Your task to perform on an android device: toggle notification dots Image 0: 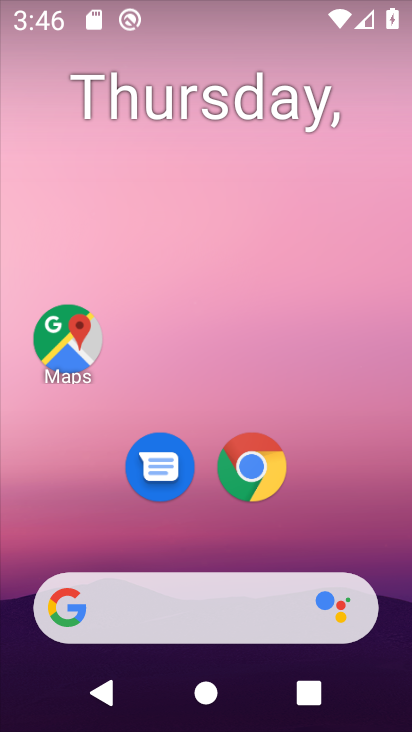
Step 0: drag from (201, 543) to (257, 103)
Your task to perform on an android device: toggle notification dots Image 1: 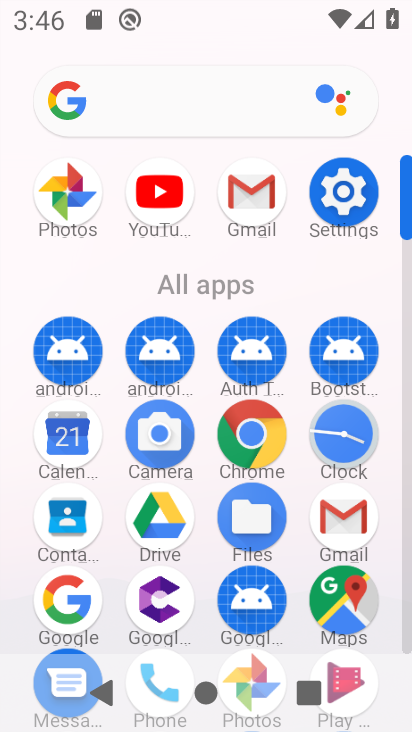
Step 1: click (349, 194)
Your task to perform on an android device: toggle notification dots Image 2: 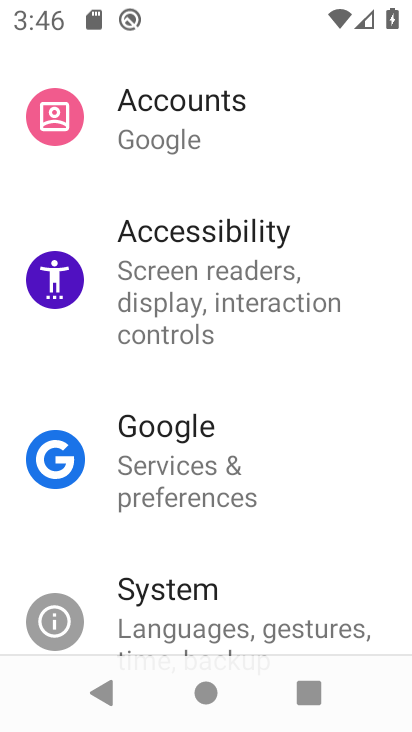
Step 2: drag from (238, 170) to (236, 549)
Your task to perform on an android device: toggle notification dots Image 3: 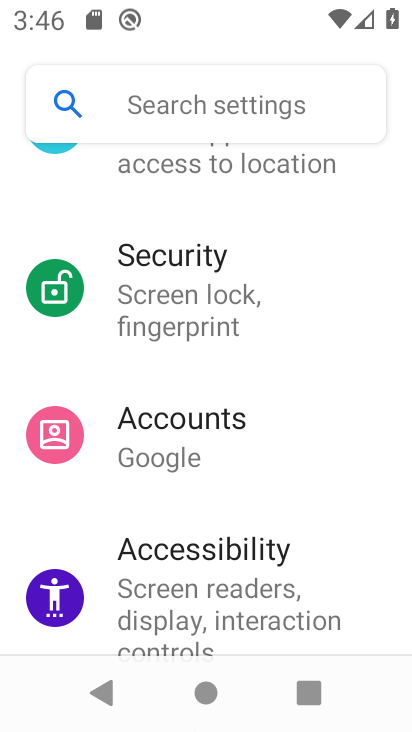
Step 3: drag from (222, 236) to (224, 540)
Your task to perform on an android device: toggle notification dots Image 4: 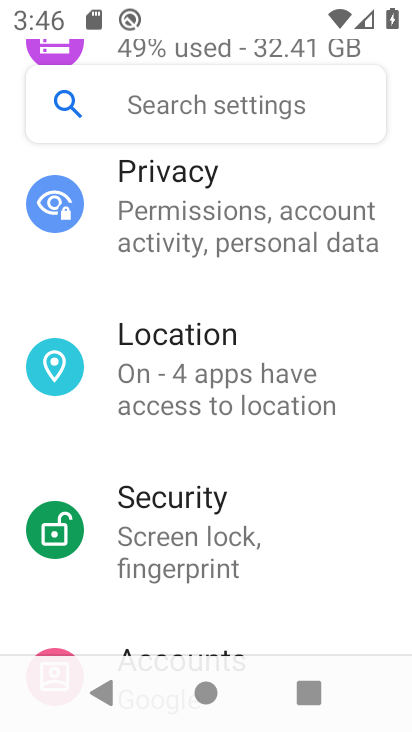
Step 4: drag from (305, 265) to (274, 637)
Your task to perform on an android device: toggle notification dots Image 5: 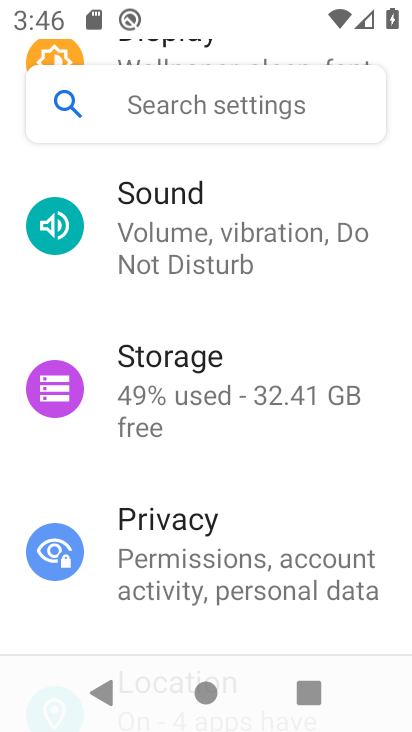
Step 5: drag from (287, 356) to (248, 697)
Your task to perform on an android device: toggle notification dots Image 6: 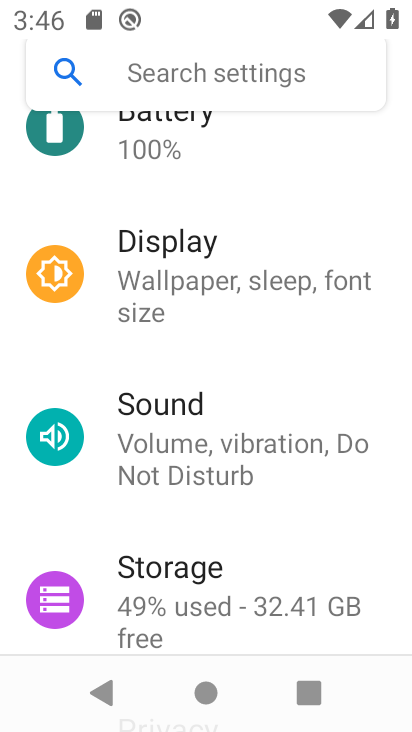
Step 6: drag from (231, 177) to (227, 647)
Your task to perform on an android device: toggle notification dots Image 7: 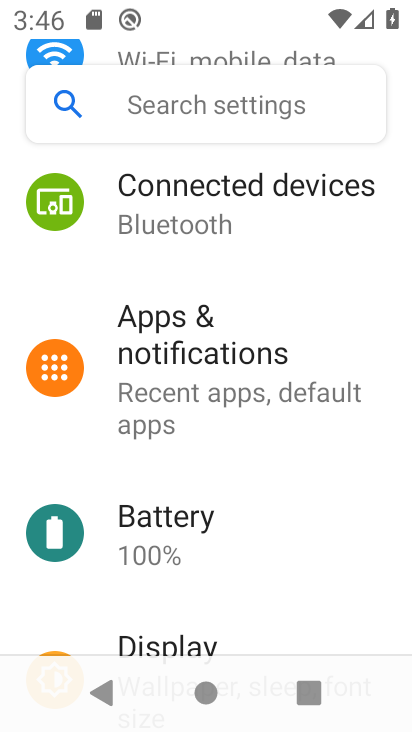
Step 7: drag from (258, 235) to (250, 615)
Your task to perform on an android device: toggle notification dots Image 8: 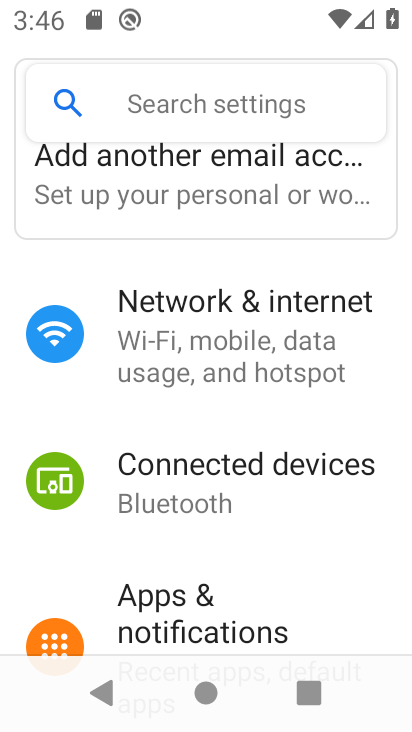
Step 8: click (220, 623)
Your task to perform on an android device: toggle notification dots Image 9: 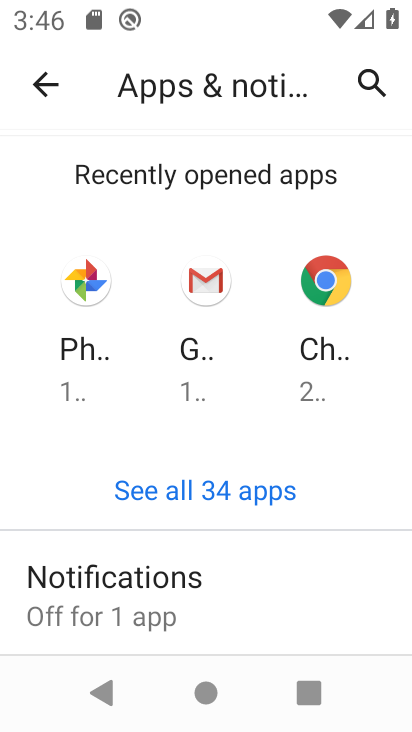
Step 9: drag from (193, 614) to (238, 286)
Your task to perform on an android device: toggle notification dots Image 10: 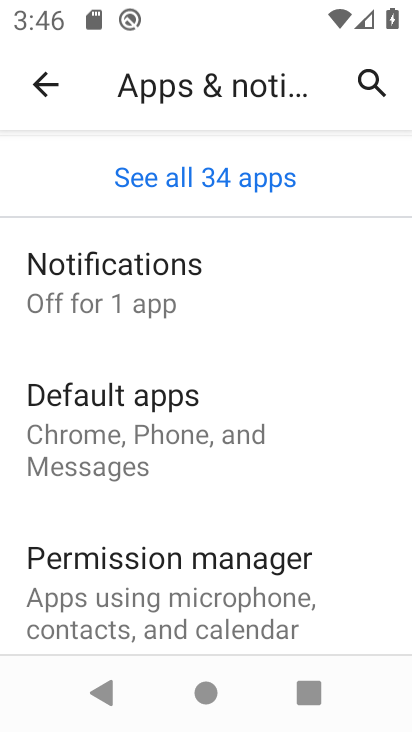
Step 10: click (124, 310)
Your task to perform on an android device: toggle notification dots Image 11: 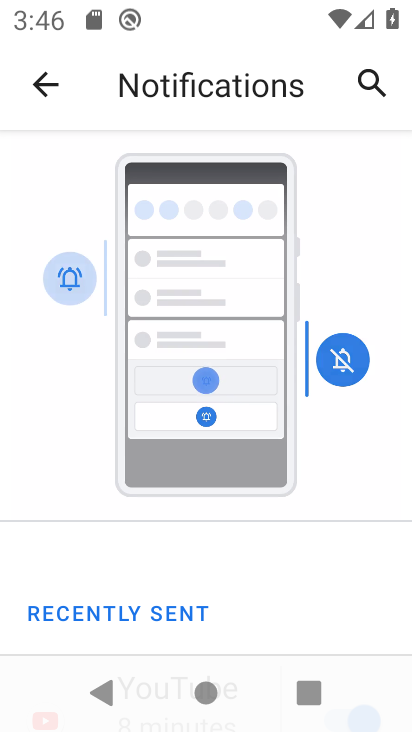
Step 11: drag from (134, 545) to (227, 230)
Your task to perform on an android device: toggle notification dots Image 12: 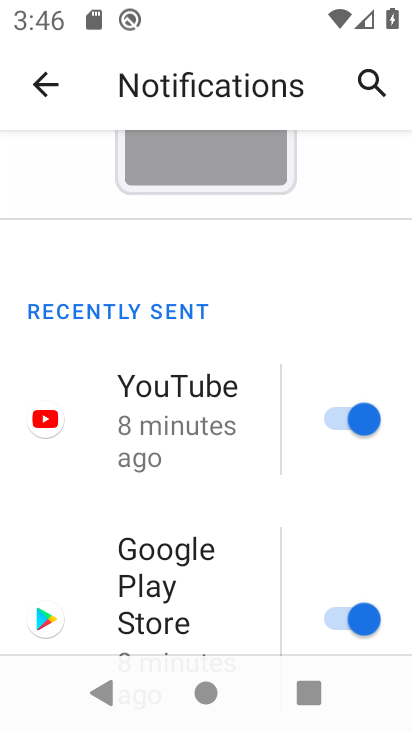
Step 12: drag from (219, 517) to (287, 215)
Your task to perform on an android device: toggle notification dots Image 13: 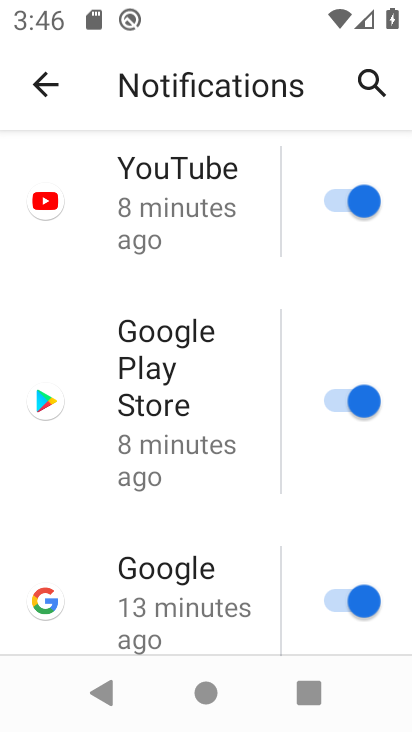
Step 13: drag from (243, 532) to (321, 104)
Your task to perform on an android device: toggle notification dots Image 14: 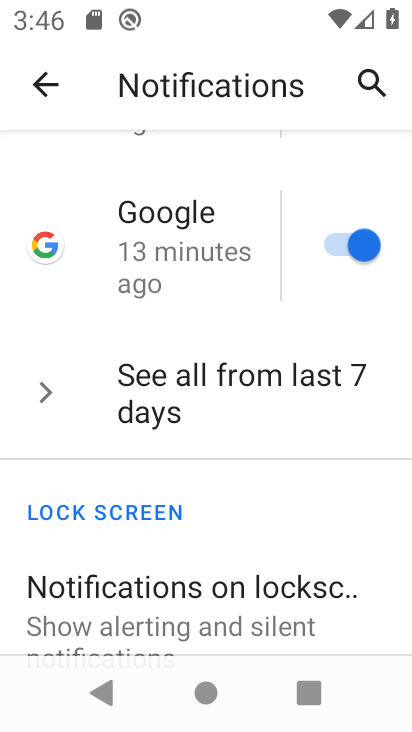
Step 14: drag from (211, 583) to (242, 304)
Your task to perform on an android device: toggle notification dots Image 15: 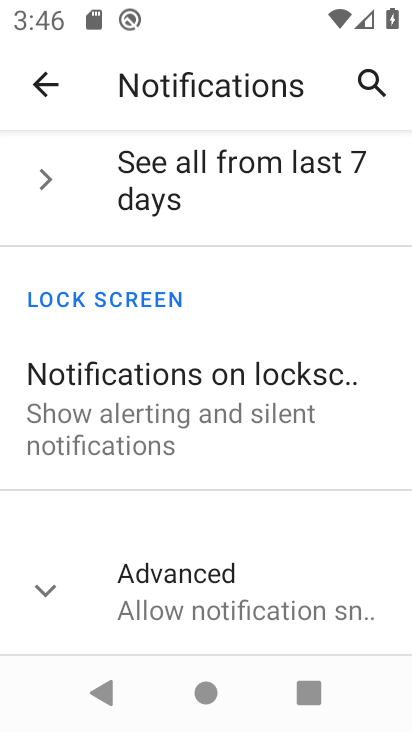
Step 15: drag from (230, 593) to (265, 366)
Your task to perform on an android device: toggle notification dots Image 16: 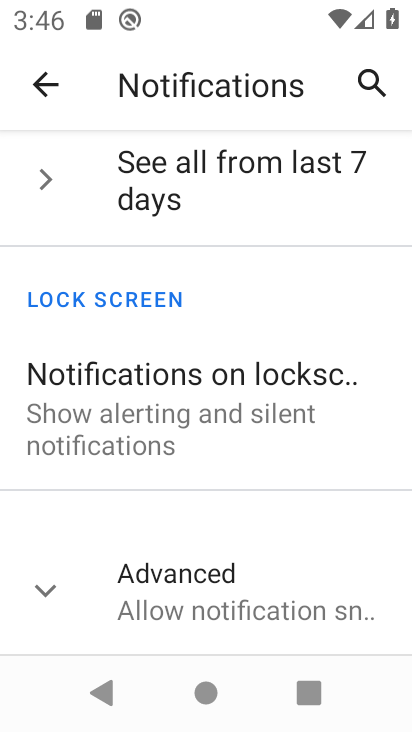
Step 16: click (138, 576)
Your task to perform on an android device: toggle notification dots Image 17: 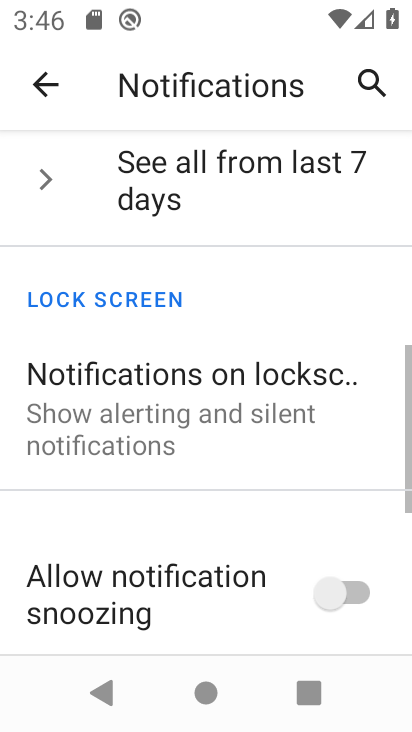
Step 17: drag from (157, 540) to (252, 208)
Your task to perform on an android device: toggle notification dots Image 18: 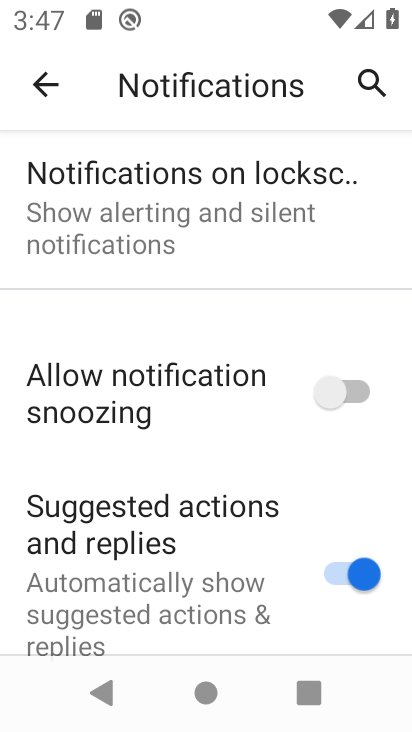
Step 18: drag from (284, 589) to (334, 248)
Your task to perform on an android device: toggle notification dots Image 19: 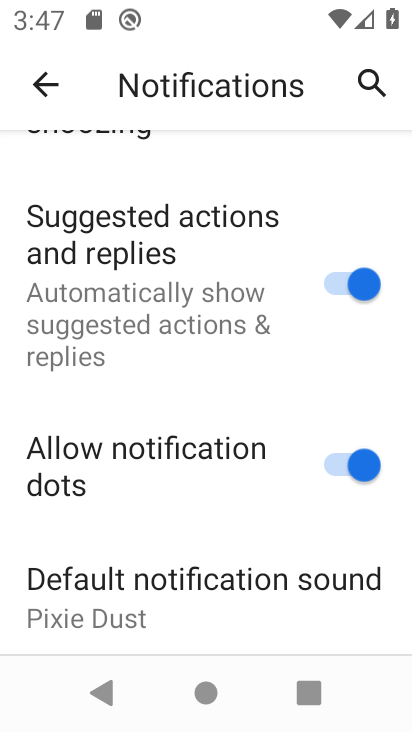
Step 19: click (324, 460)
Your task to perform on an android device: toggle notification dots Image 20: 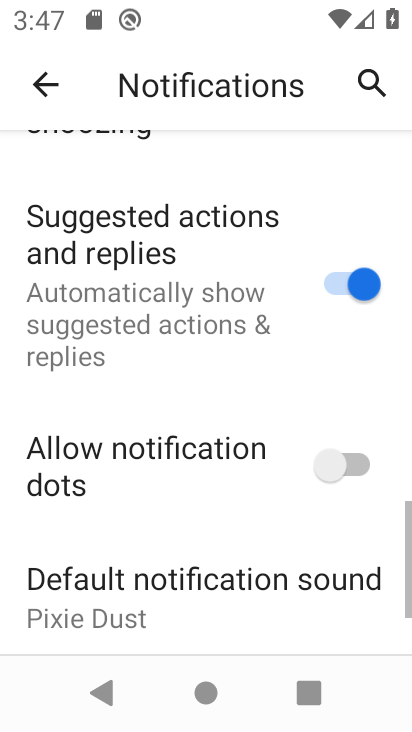
Step 20: task complete